Your task to perform on an android device: Open calendar and show me the first week of next month Image 0: 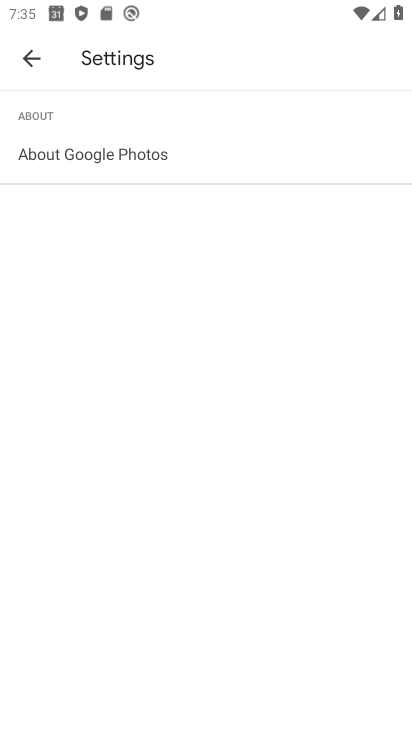
Step 0: press home button
Your task to perform on an android device: Open calendar and show me the first week of next month Image 1: 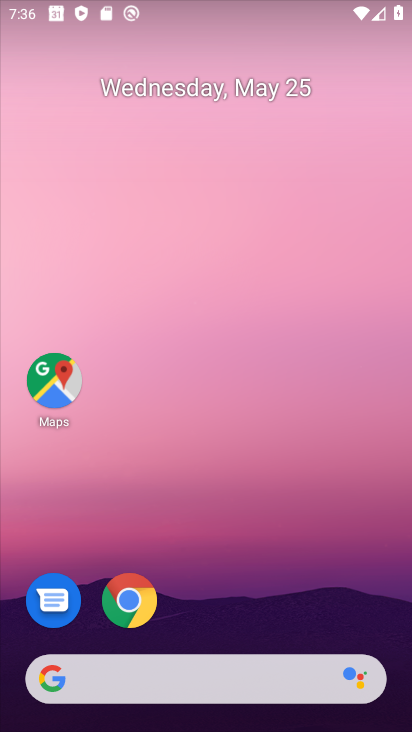
Step 1: drag from (365, 595) to (359, 217)
Your task to perform on an android device: Open calendar and show me the first week of next month Image 2: 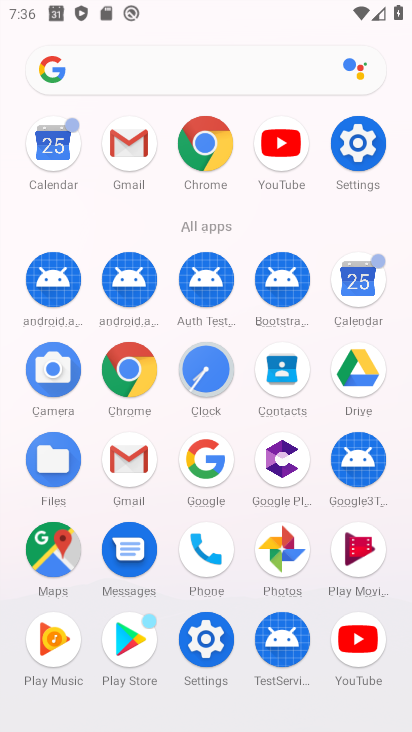
Step 2: click (351, 301)
Your task to perform on an android device: Open calendar and show me the first week of next month Image 3: 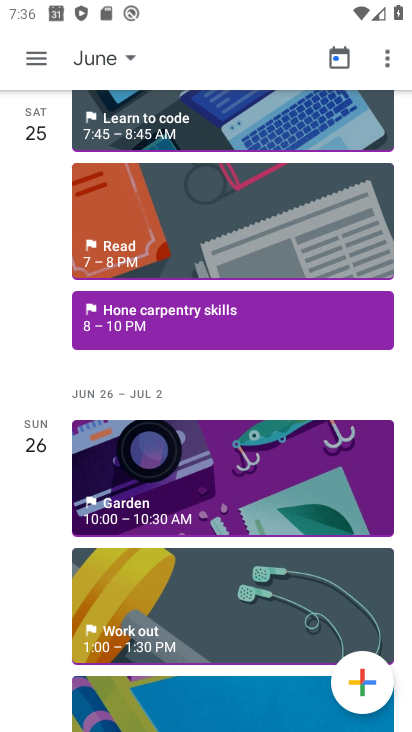
Step 3: click (91, 62)
Your task to perform on an android device: Open calendar and show me the first week of next month Image 4: 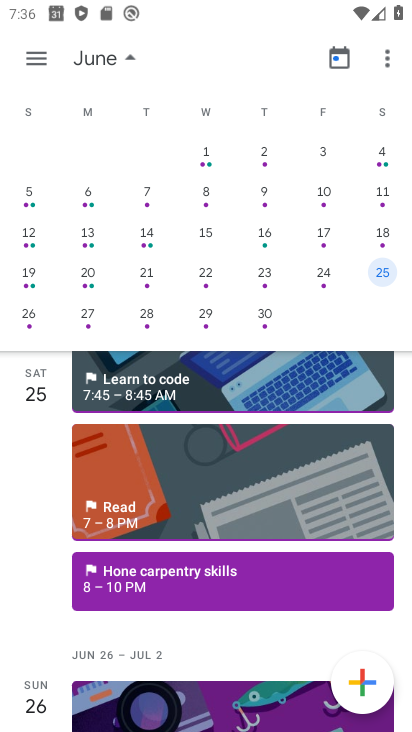
Step 4: click (206, 152)
Your task to perform on an android device: Open calendar and show me the first week of next month Image 5: 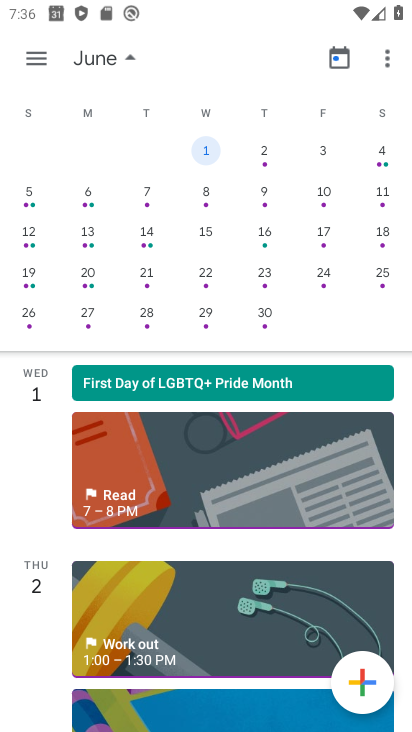
Step 5: task complete